Your task to perform on an android device: Open Reddit.com Image 0: 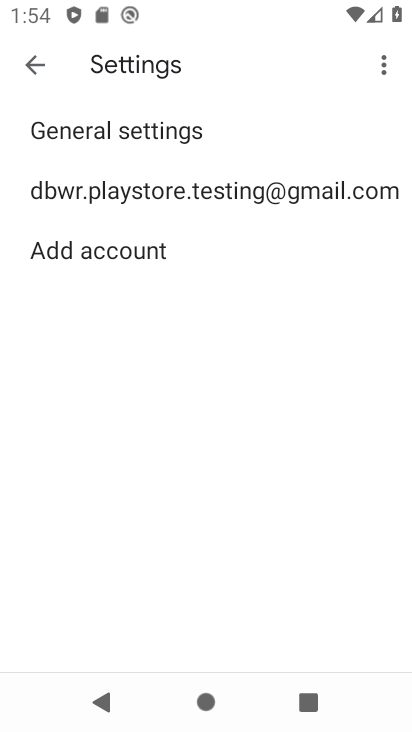
Step 0: press home button
Your task to perform on an android device: Open Reddit.com Image 1: 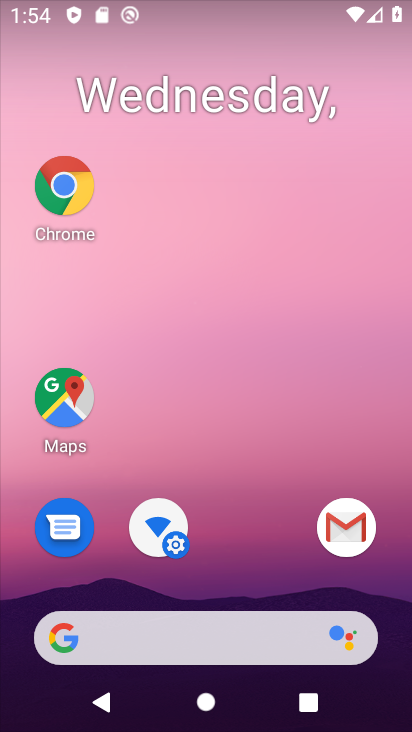
Step 1: click (36, 157)
Your task to perform on an android device: Open Reddit.com Image 2: 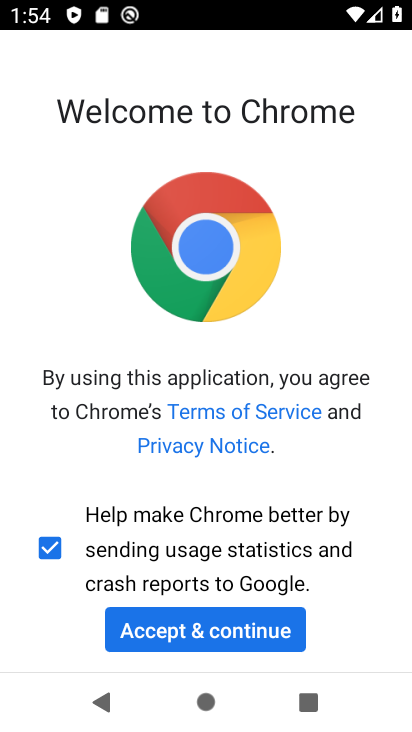
Step 2: click (229, 632)
Your task to perform on an android device: Open Reddit.com Image 3: 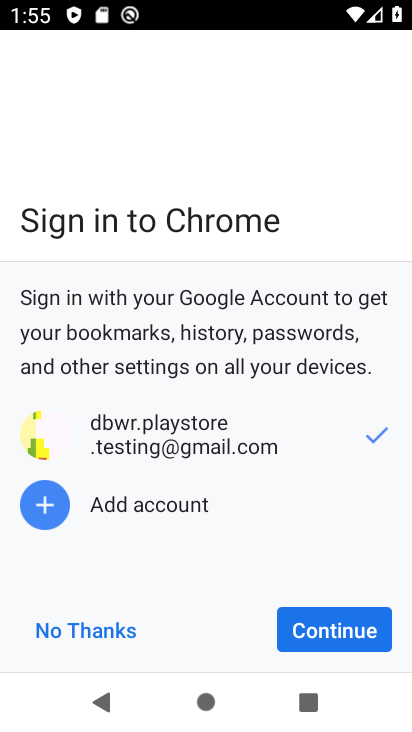
Step 3: click (341, 635)
Your task to perform on an android device: Open Reddit.com Image 4: 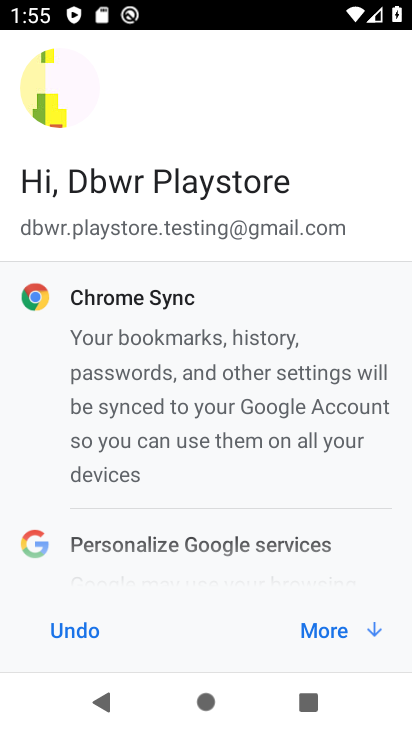
Step 4: click (343, 616)
Your task to perform on an android device: Open Reddit.com Image 5: 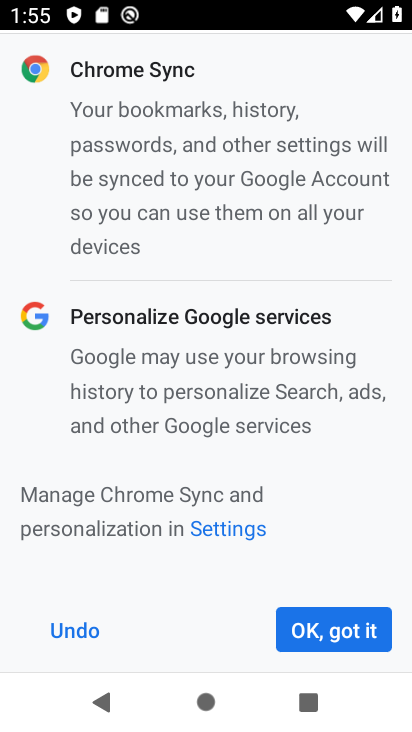
Step 5: click (338, 615)
Your task to perform on an android device: Open Reddit.com Image 6: 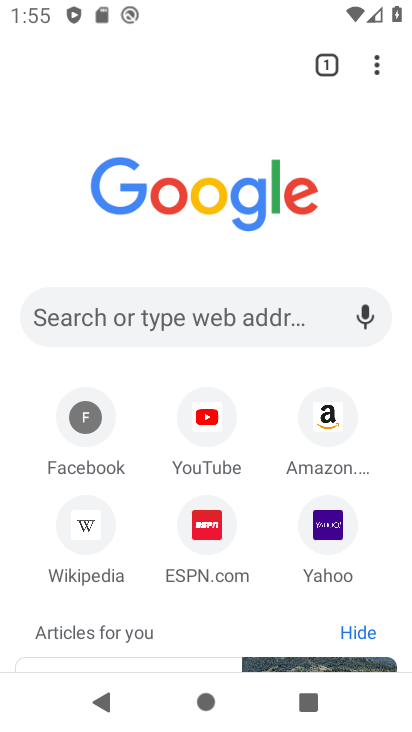
Step 6: type "www.reddit.com"
Your task to perform on an android device: Open Reddit.com Image 7: 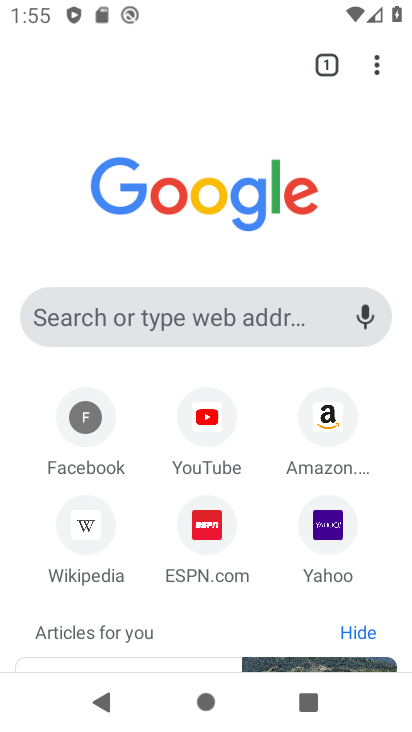
Step 7: click (112, 315)
Your task to perform on an android device: Open Reddit.com Image 8: 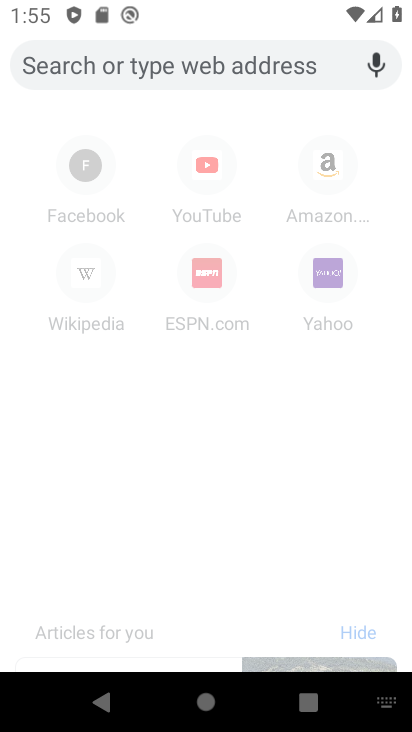
Step 8: click (112, 315)
Your task to perform on an android device: Open Reddit.com Image 9: 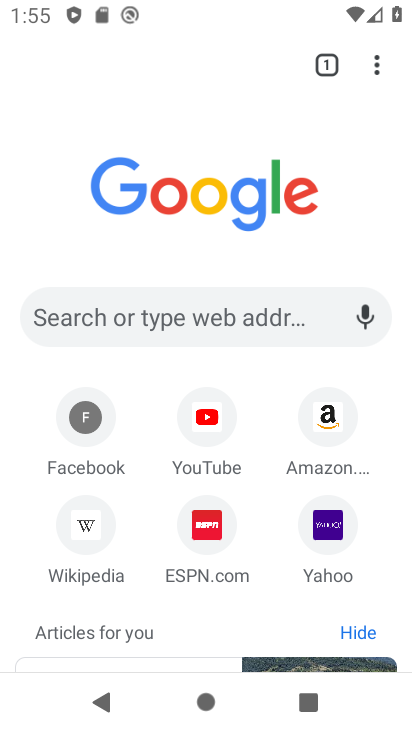
Step 9: click (75, 300)
Your task to perform on an android device: Open Reddit.com Image 10: 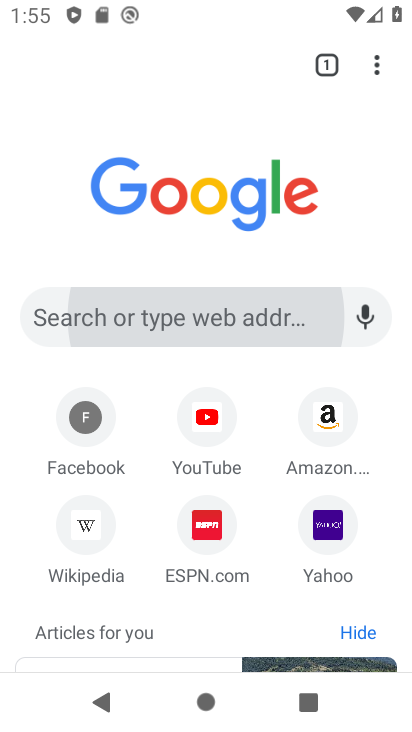
Step 10: click (81, 305)
Your task to perform on an android device: Open Reddit.com Image 11: 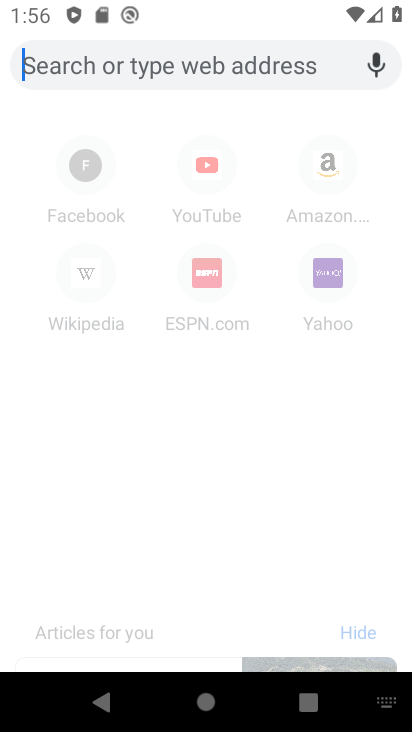
Step 11: type "www.reddit .com"
Your task to perform on an android device: Open Reddit.com Image 12: 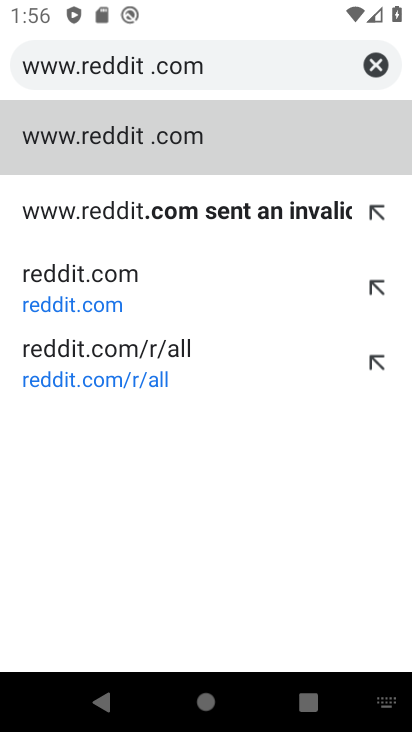
Step 12: click (44, 296)
Your task to perform on an android device: Open Reddit.com Image 13: 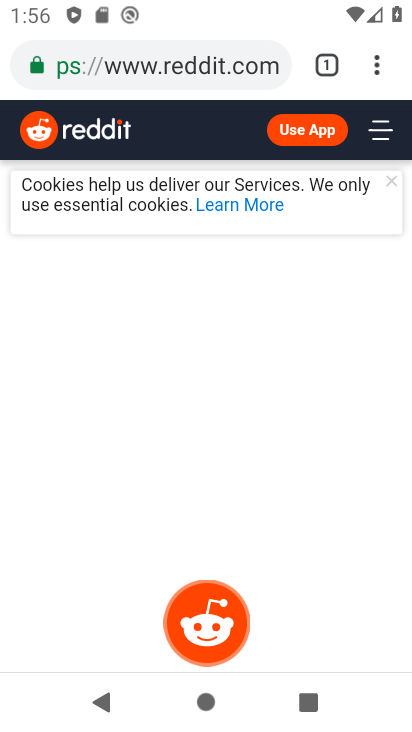
Step 13: task complete